Your task to perform on an android device: toggle notification dots Image 0: 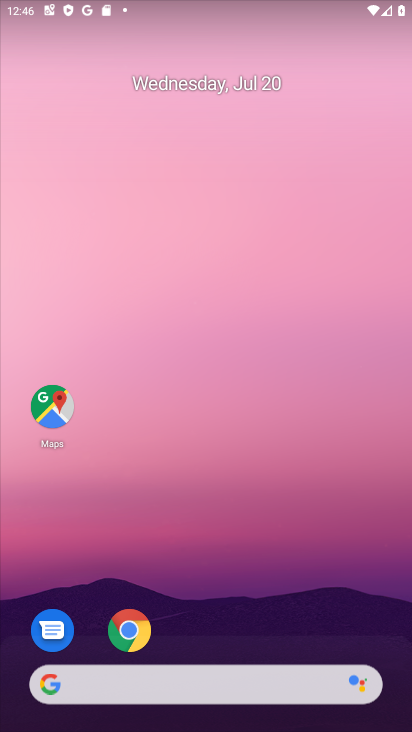
Step 0: drag from (255, 631) to (245, 106)
Your task to perform on an android device: toggle notification dots Image 1: 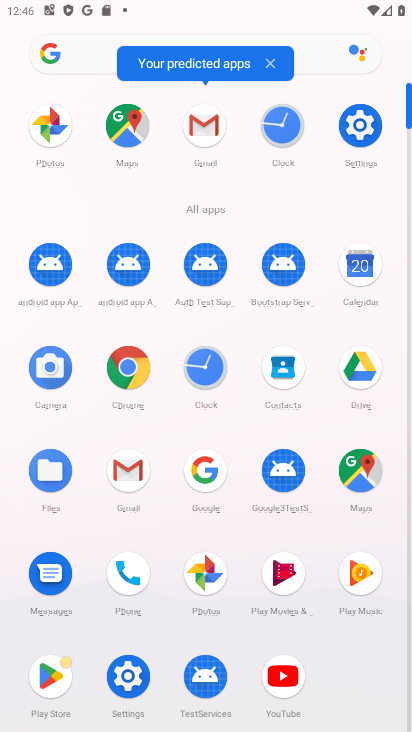
Step 1: click (375, 163)
Your task to perform on an android device: toggle notification dots Image 2: 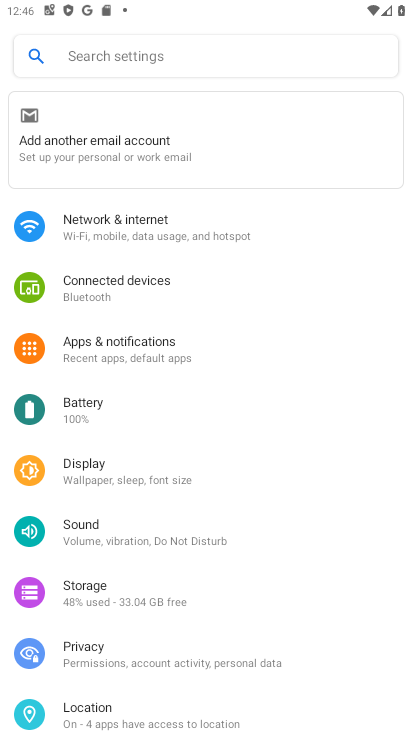
Step 2: click (210, 358)
Your task to perform on an android device: toggle notification dots Image 3: 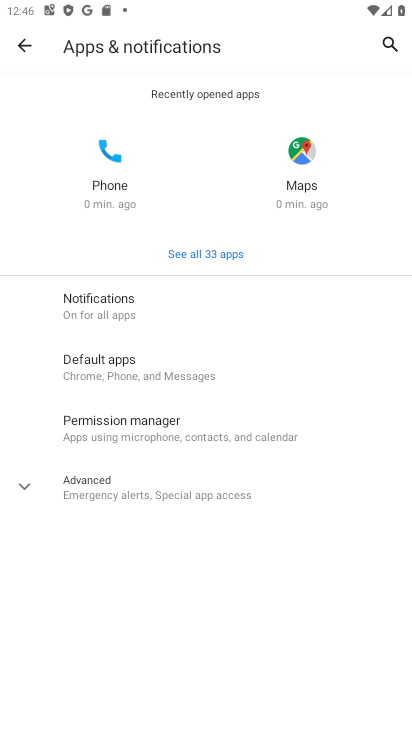
Step 3: click (274, 295)
Your task to perform on an android device: toggle notification dots Image 4: 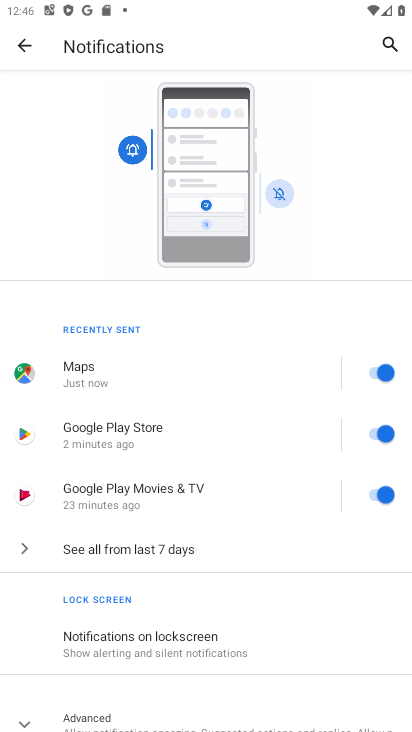
Step 4: drag from (316, 654) to (289, 302)
Your task to perform on an android device: toggle notification dots Image 5: 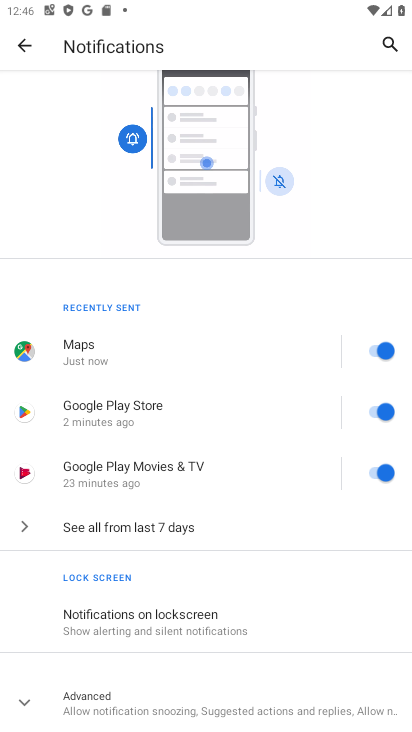
Step 5: click (276, 710)
Your task to perform on an android device: toggle notification dots Image 6: 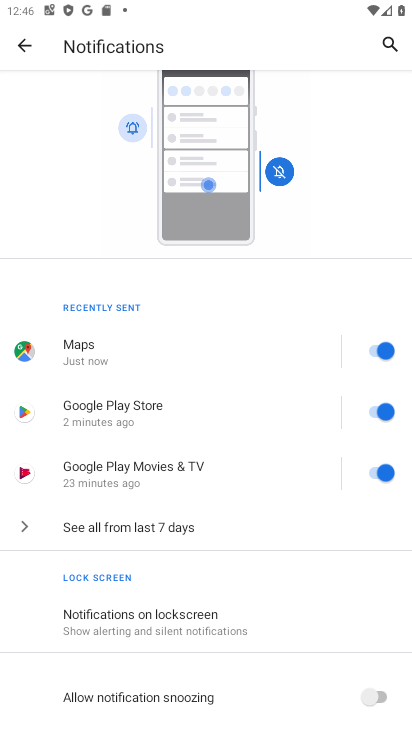
Step 6: drag from (302, 690) to (277, 263)
Your task to perform on an android device: toggle notification dots Image 7: 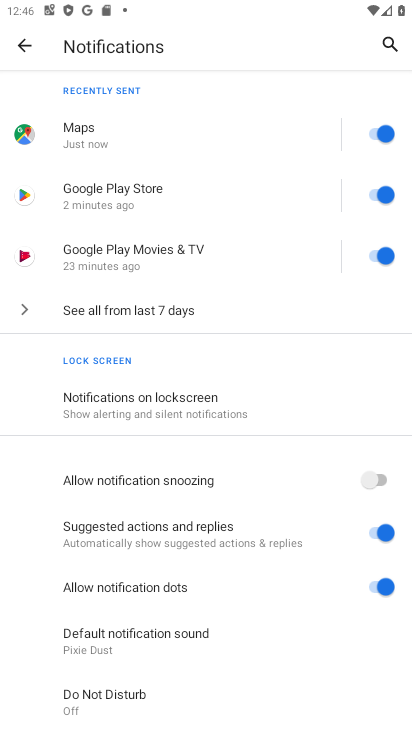
Step 7: click (385, 589)
Your task to perform on an android device: toggle notification dots Image 8: 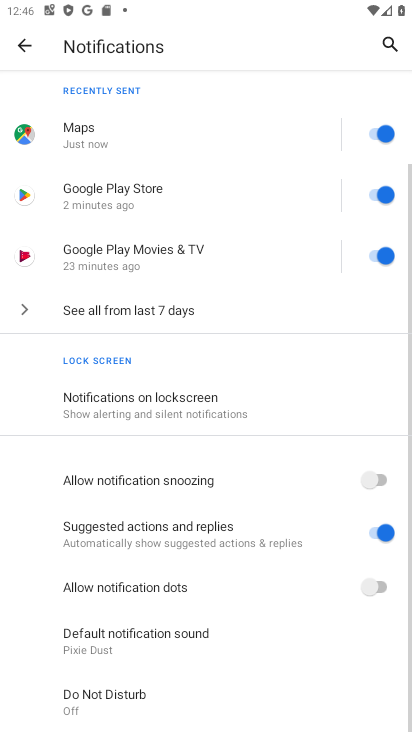
Step 8: task complete